Your task to perform on an android device: turn on showing notifications on the lock screen Image 0: 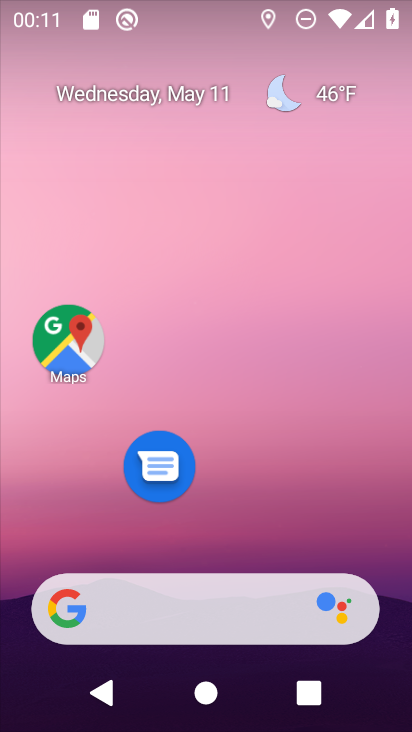
Step 0: drag from (327, 530) to (286, 31)
Your task to perform on an android device: turn on showing notifications on the lock screen Image 1: 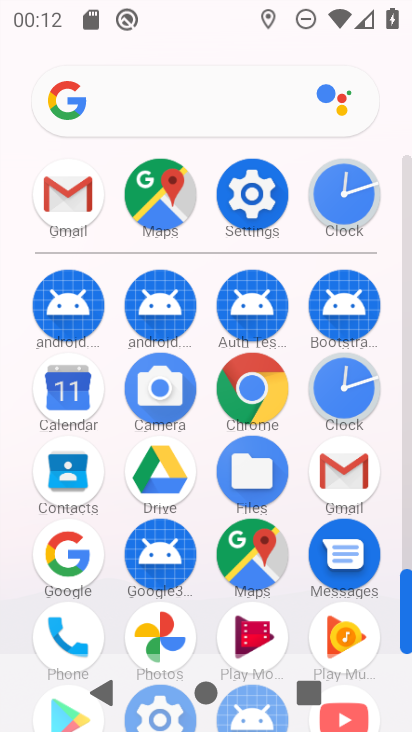
Step 1: click (242, 191)
Your task to perform on an android device: turn on showing notifications on the lock screen Image 2: 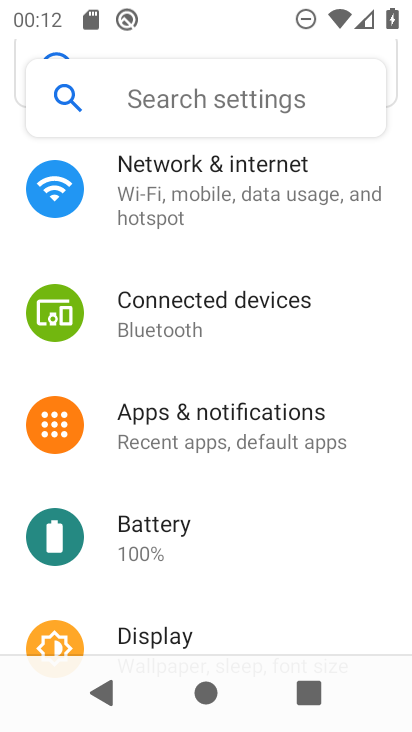
Step 2: click (245, 437)
Your task to perform on an android device: turn on showing notifications on the lock screen Image 3: 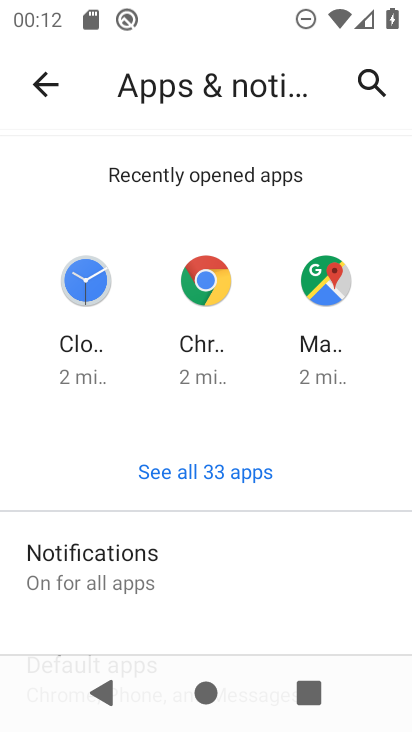
Step 3: click (245, 556)
Your task to perform on an android device: turn on showing notifications on the lock screen Image 4: 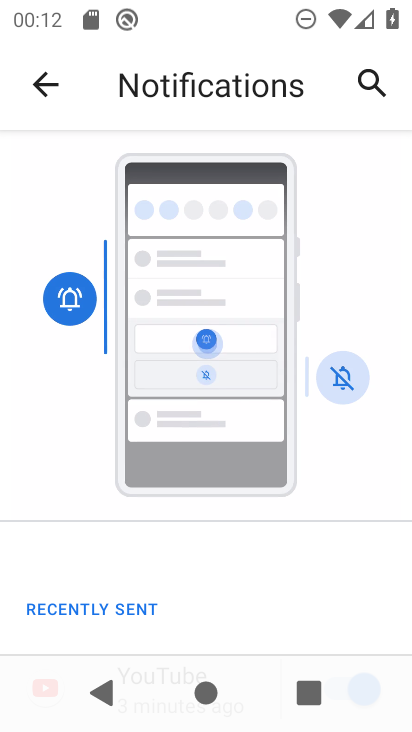
Step 4: drag from (297, 618) to (373, 270)
Your task to perform on an android device: turn on showing notifications on the lock screen Image 5: 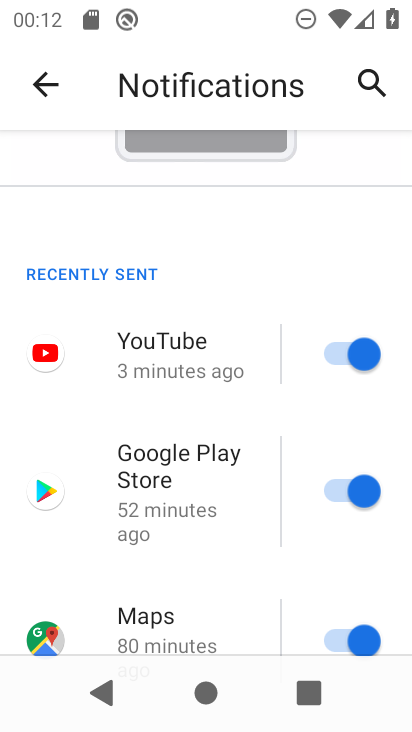
Step 5: drag from (211, 611) to (277, 310)
Your task to perform on an android device: turn on showing notifications on the lock screen Image 6: 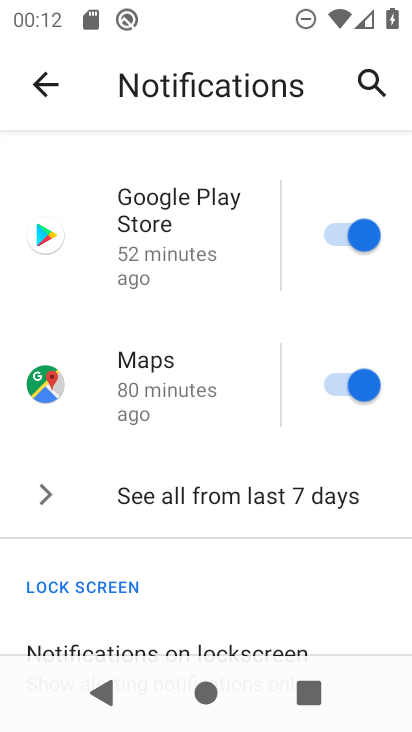
Step 6: drag from (250, 550) to (320, 207)
Your task to perform on an android device: turn on showing notifications on the lock screen Image 7: 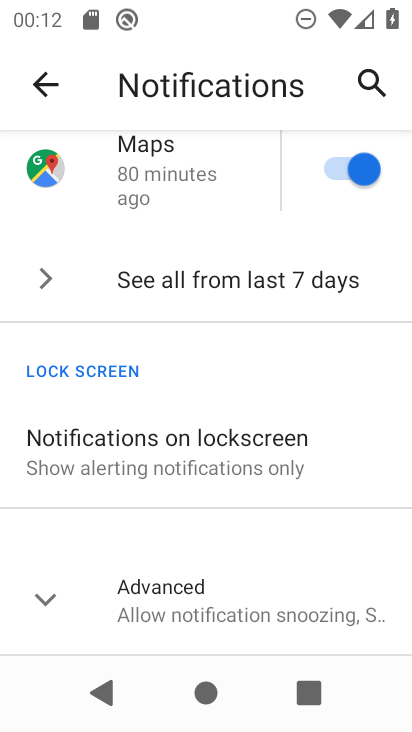
Step 7: click (228, 461)
Your task to perform on an android device: turn on showing notifications on the lock screen Image 8: 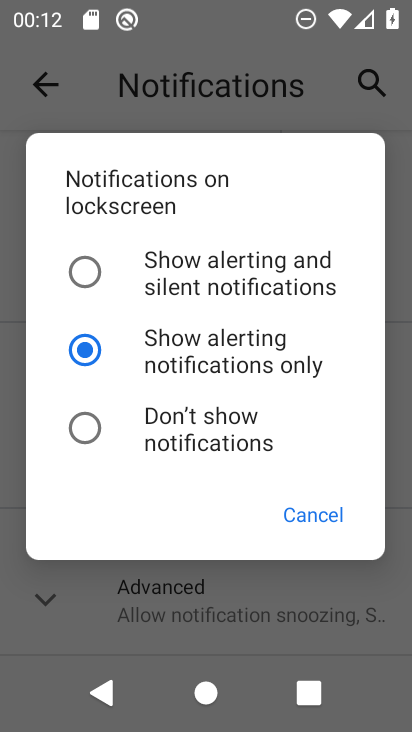
Step 8: click (284, 276)
Your task to perform on an android device: turn on showing notifications on the lock screen Image 9: 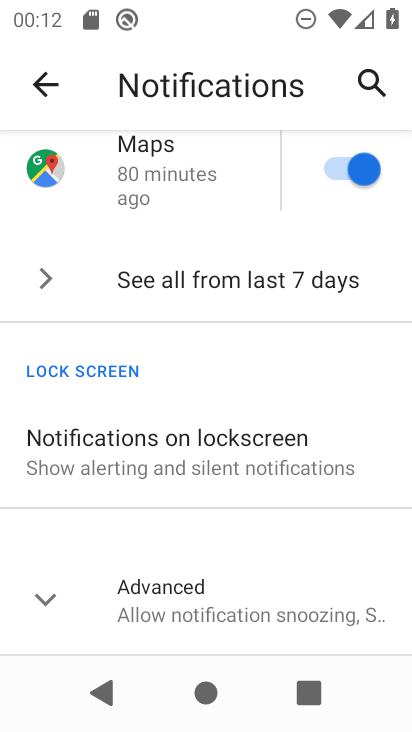
Step 9: task complete